Your task to perform on an android device: Do I have any events this weekend? Image 0: 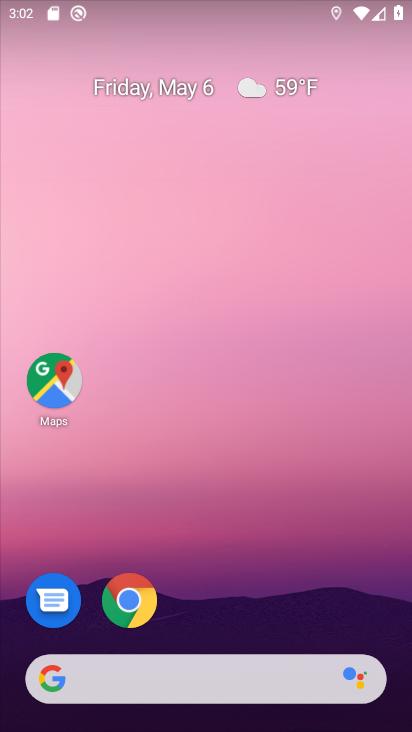
Step 0: drag from (256, 605) to (244, 92)
Your task to perform on an android device: Do I have any events this weekend? Image 1: 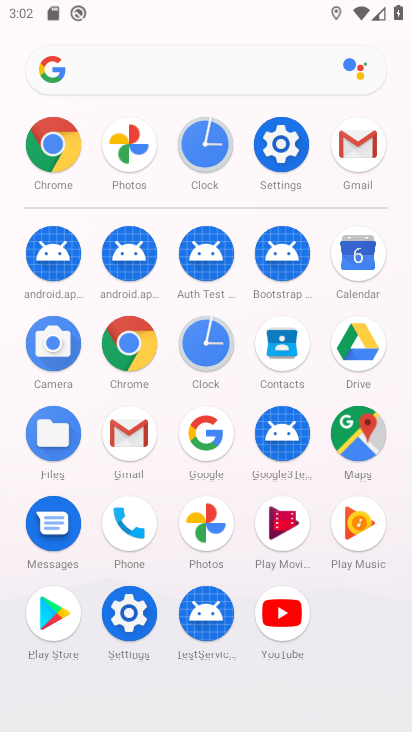
Step 1: drag from (303, 292) to (314, 462)
Your task to perform on an android device: Do I have any events this weekend? Image 2: 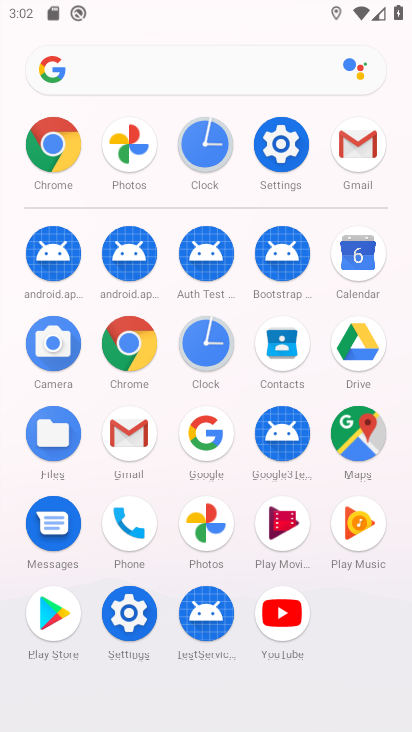
Step 2: click (349, 262)
Your task to perform on an android device: Do I have any events this weekend? Image 3: 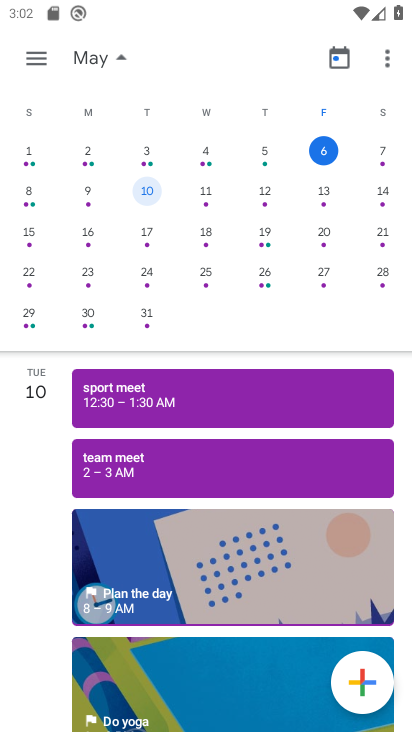
Step 3: click (192, 190)
Your task to perform on an android device: Do I have any events this weekend? Image 4: 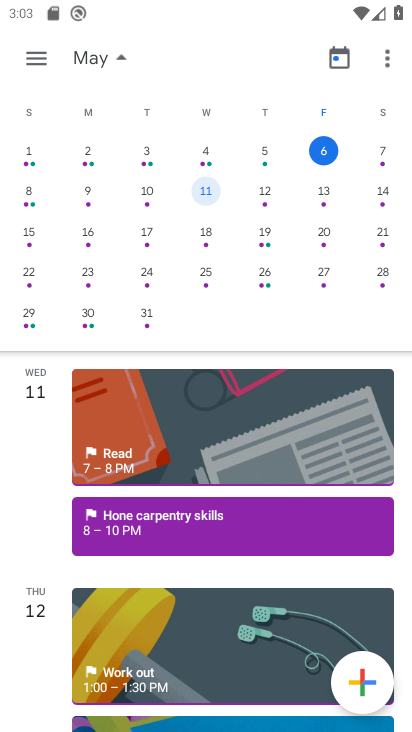
Step 4: task complete